Your task to perform on an android device: check out phone information Image 0: 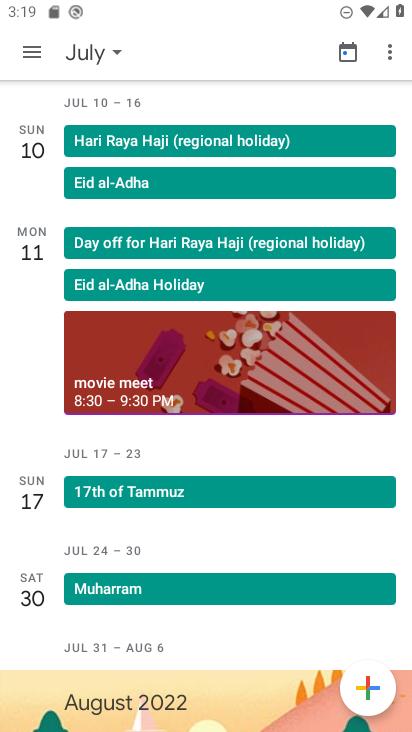
Step 0: press home button
Your task to perform on an android device: check out phone information Image 1: 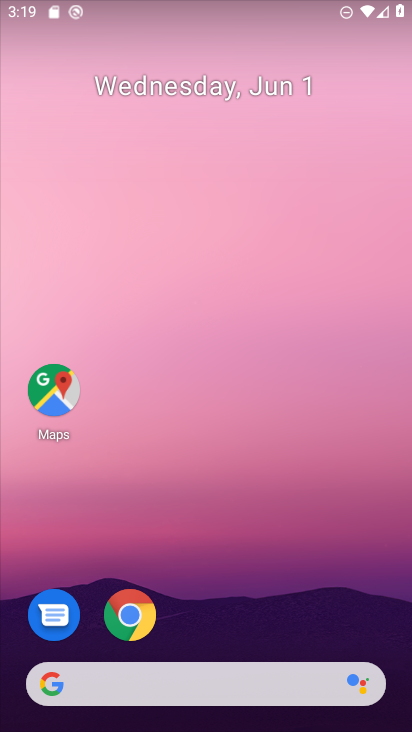
Step 1: drag from (209, 634) to (228, 51)
Your task to perform on an android device: check out phone information Image 2: 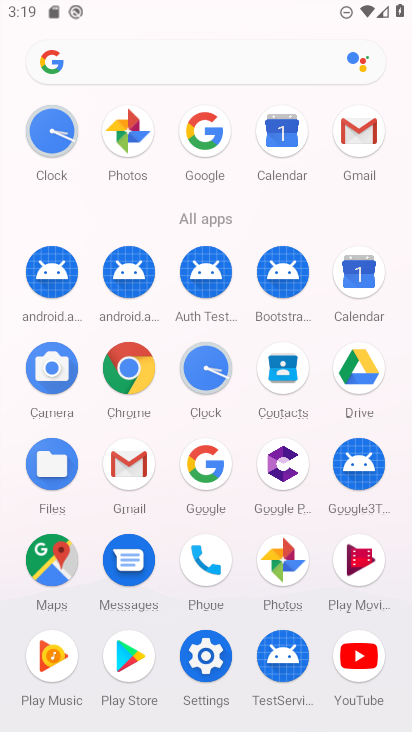
Step 2: click (201, 648)
Your task to perform on an android device: check out phone information Image 3: 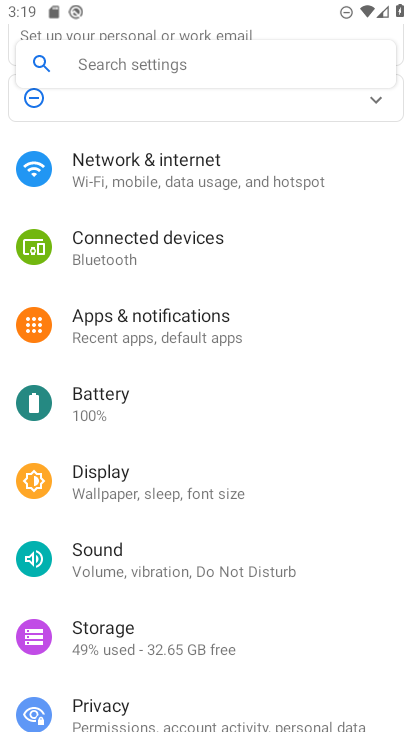
Step 3: drag from (264, 675) to (295, 7)
Your task to perform on an android device: check out phone information Image 4: 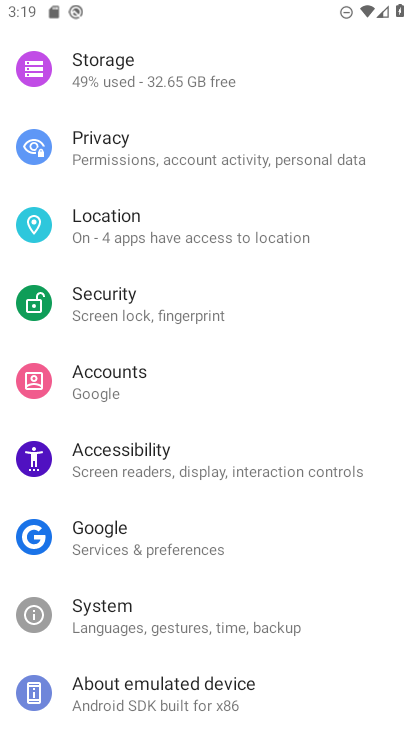
Step 4: click (258, 700)
Your task to perform on an android device: check out phone information Image 5: 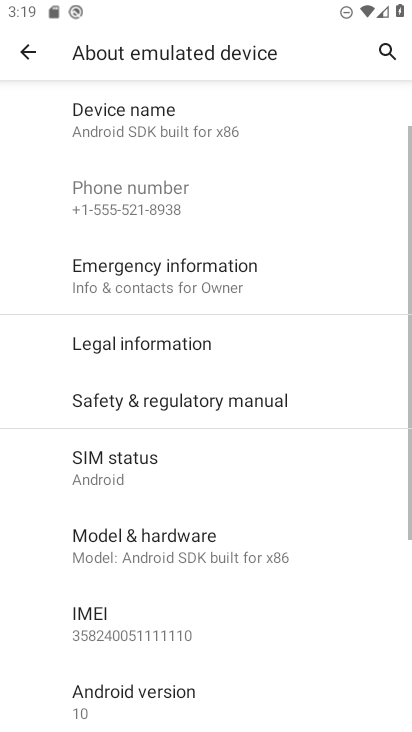
Step 5: drag from (239, 612) to (238, 311)
Your task to perform on an android device: check out phone information Image 6: 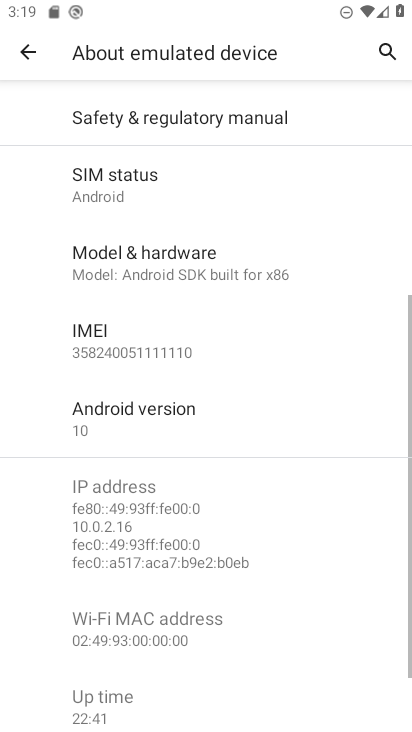
Step 6: click (243, 190)
Your task to perform on an android device: check out phone information Image 7: 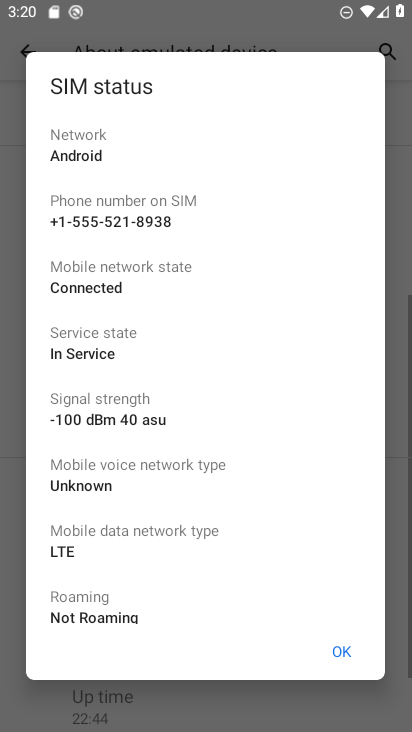
Step 7: click (336, 650)
Your task to perform on an android device: check out phone information Image 8: 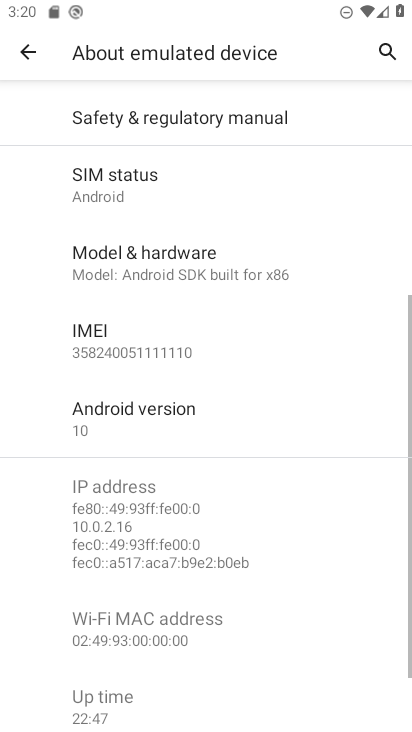
Step 8: task complete